Your task to perform on an android device: toggle wifi Image 0: 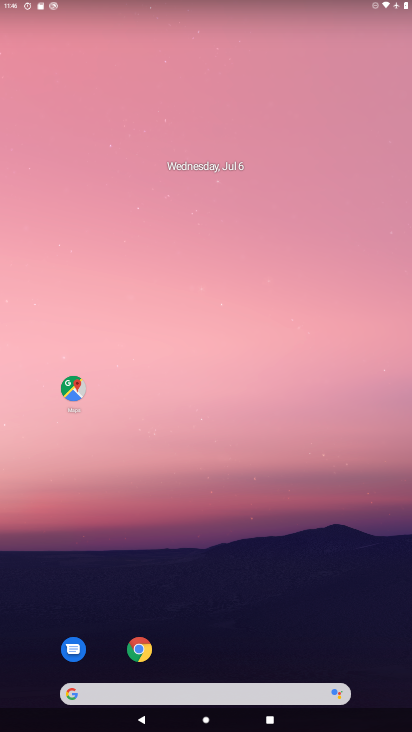
Step 0: drag from (385, 691) to (322, 173)
Your task to perform on an android device: toggle wifi Image 1: 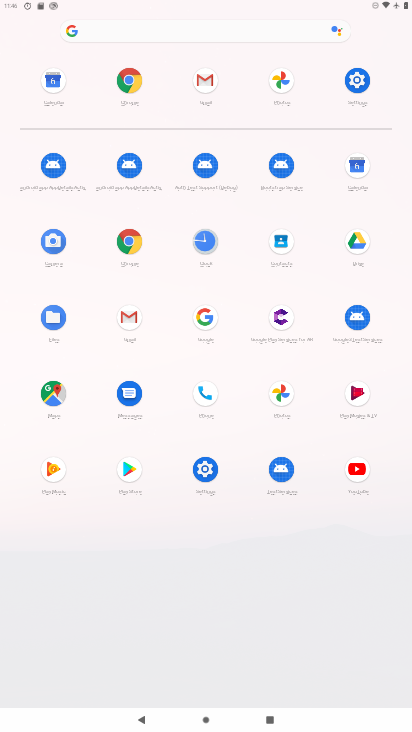
Step 1: click (380, 73)
Your task to perform on an android device: toggle wifi Image 2: 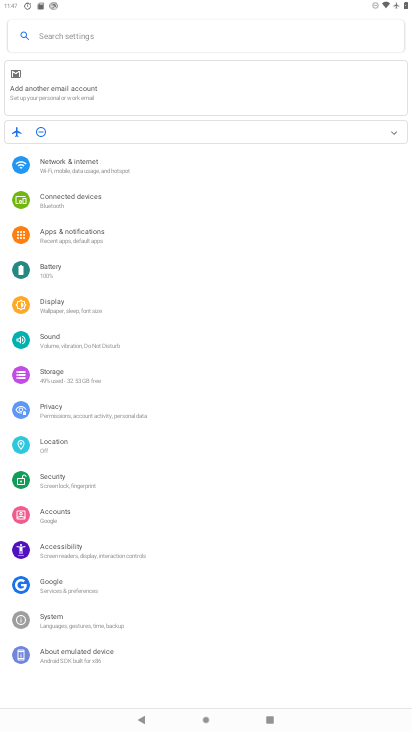
Step 2: click (102, 175)
Your task to perform on an android device: toggle wifi Image 3: 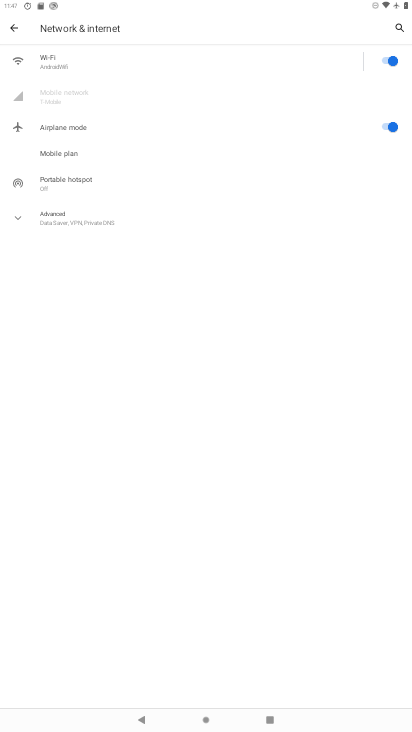
Step 3: click (387, 59)
Your task to perform on an android device: toggle wifi Image 4: 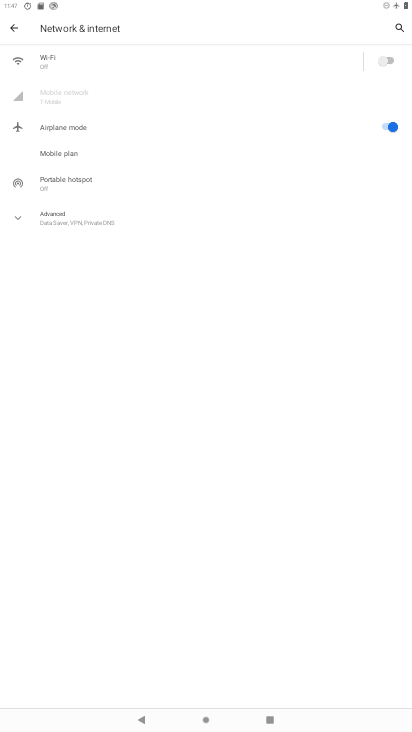
Step 4: task complete